Your task to perform on an android device: Open display settings Image 0: 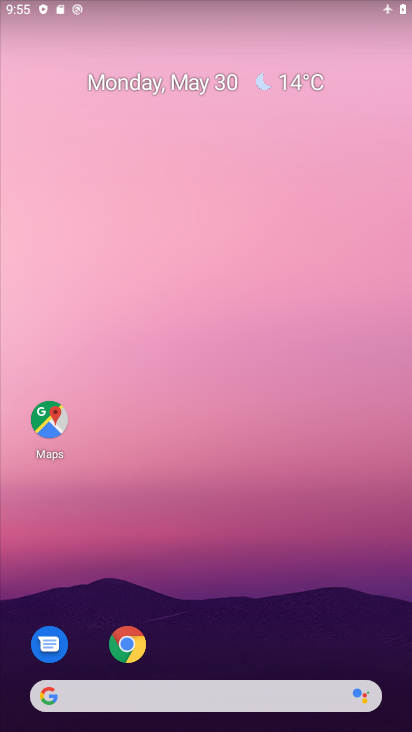
Step 0: drag from (202, 688) to (289, 226)
Your task to perform on an android device: Open display settings Image 1: 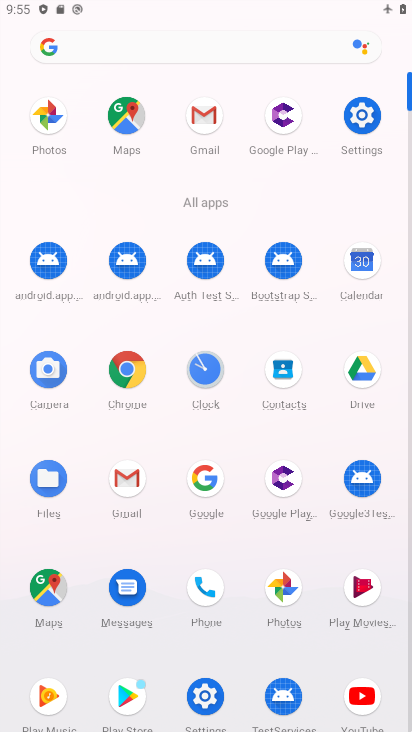
Step 1: click (210, 697)
Your task to perform on an android device: Open display settings Image 2: 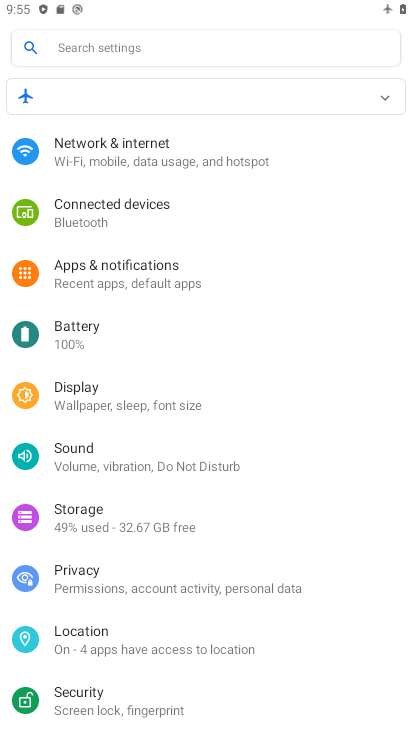
Step 2: click (147, 395)
Your task to perform on an android device: Open display settings Image 3: 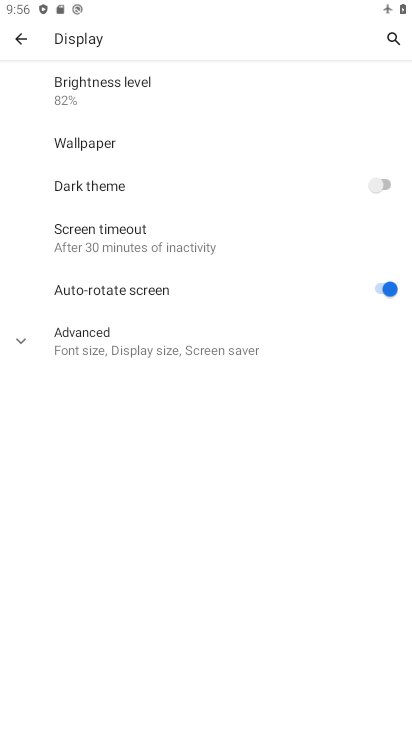
Step 3: task complete